Your task to perform on an android device: change your default location settings in chrome Image 0: 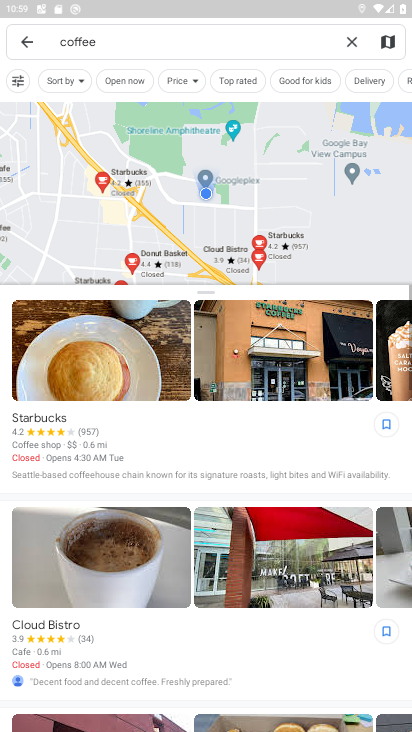
Step 0: press home button
Your task to perform on an android device: change your default location settings in chrome Image 1: 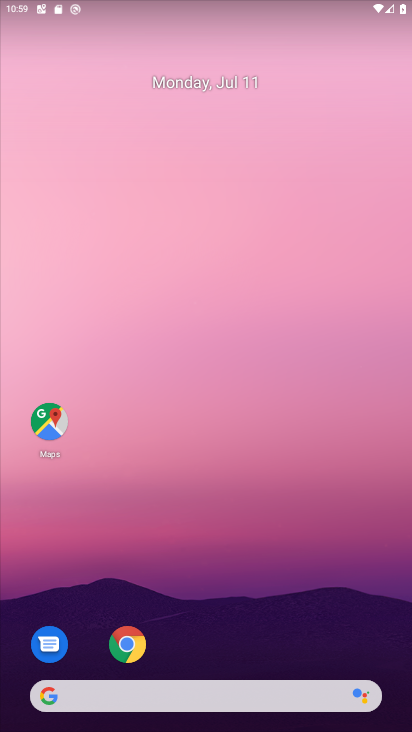
Step 1: click (127, 637)
Your task to perform on an android device: change your default location settings in chrome Image 2: 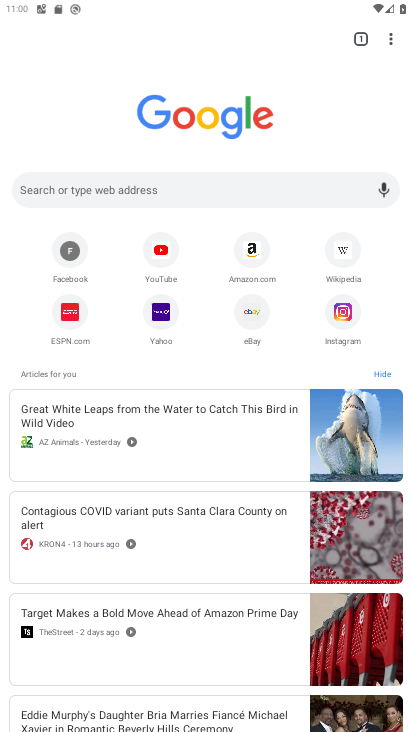
Step 2: click (391, 39)
Your task to perform on an android device: change your default location settings in chrome Image 3: 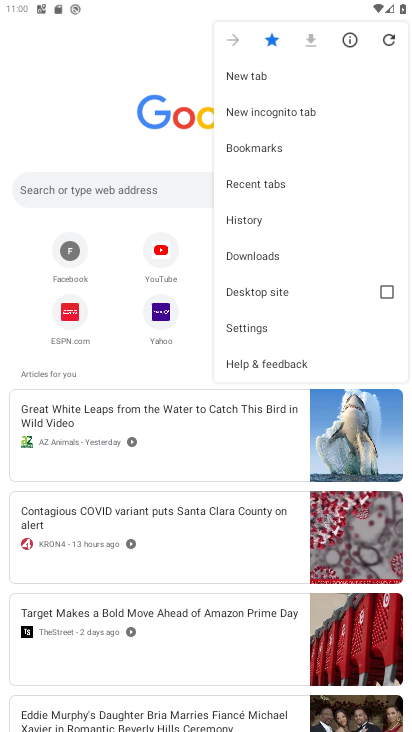
Step 3: click (248, 332)
Your task to perform on an android device: change your default location settings in chrome Image 4: 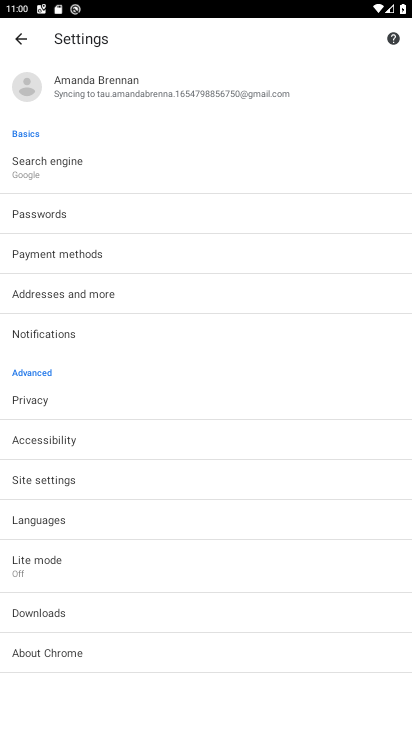
Step 4: click (76, 493)
Your task to perform on an android device: change your default location settings in chrome Image 5: 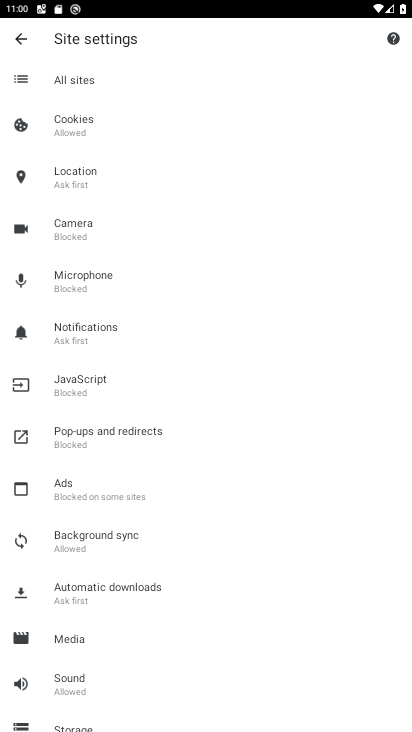
Step 5: click (89, 178)
Your task to perform on an android device: change your default location settings in chrome Image 6: 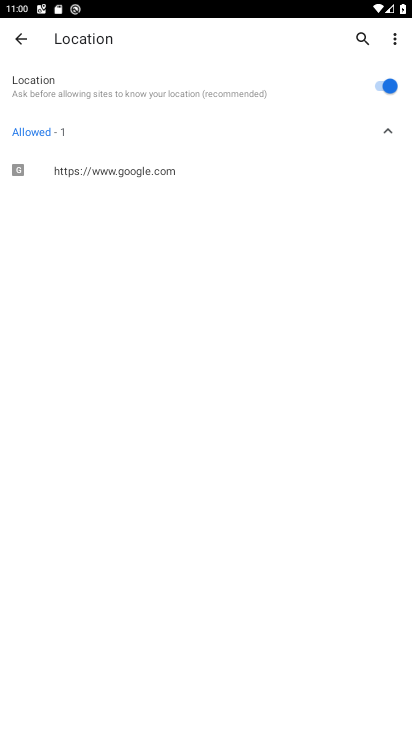
Step 6: click (379, 86)
Your task to perform on an android device: change your default location settings in chrome Image 7: 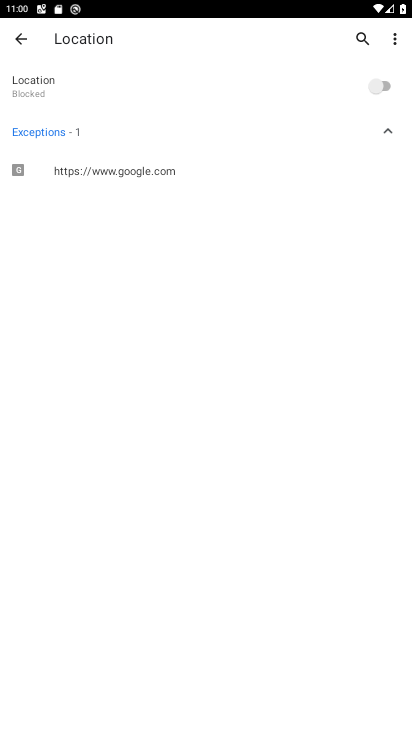
Step 7: task complete